Your task to perform on an android device: toggle improve location accuracy Image 0: 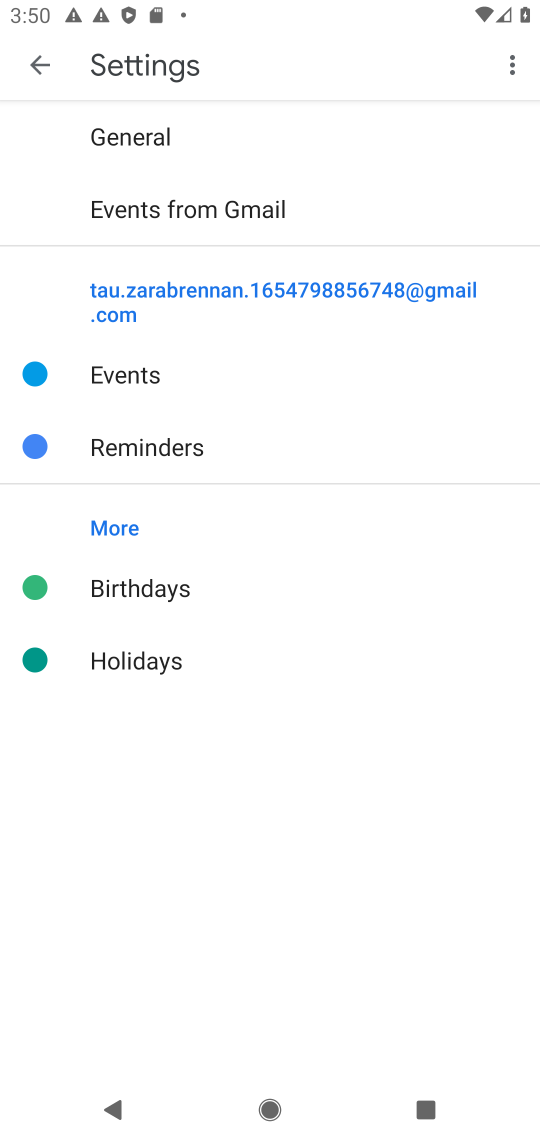
Step 0: press home button
Your task to perform on an android device: toggle improve location accuracy Image 1: 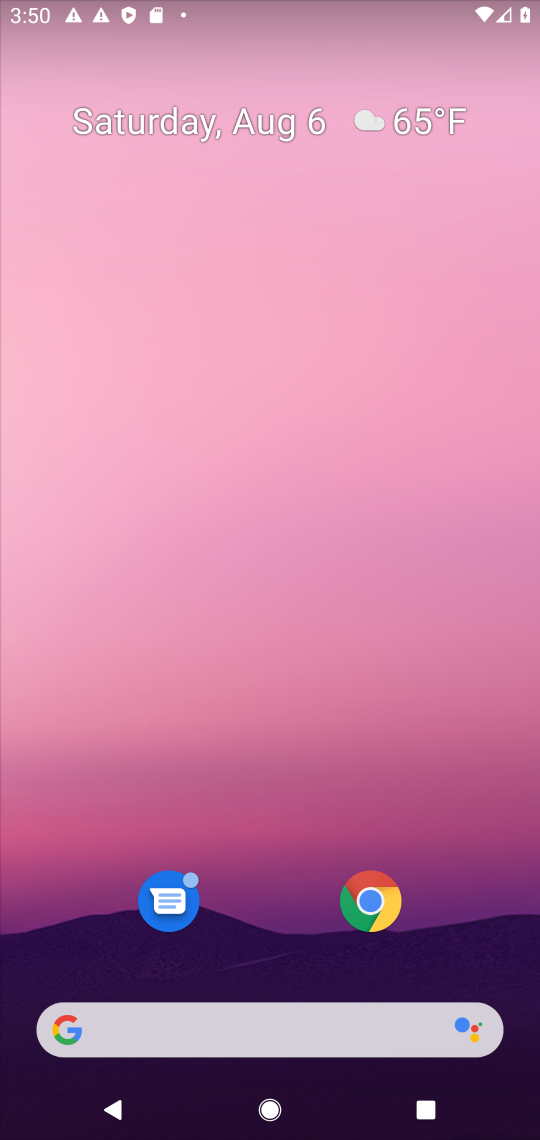
Step 1: drag from (313, 903) to (377, 287)
Your task to perform on an android device: toggle improve location accuracy Image 2: 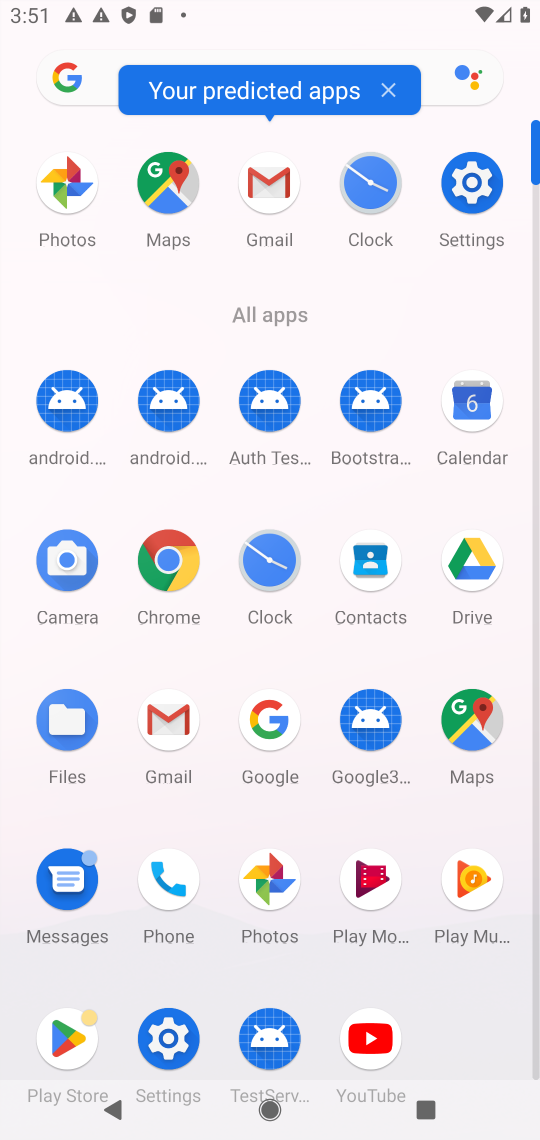
Step 2: click (468, 191)
Your task to perform on an android device: toggle improve location accuracy Image 3: 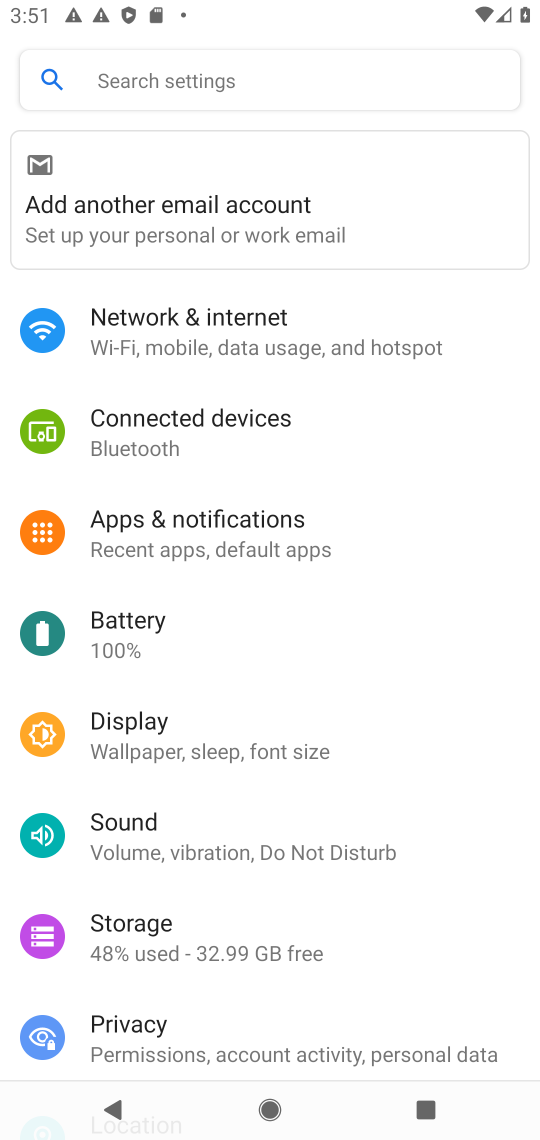
Step 3: drag from (331, 961) to (310, 537)
Your task to perform on an android device: toggle improve location accuracy Image 4: 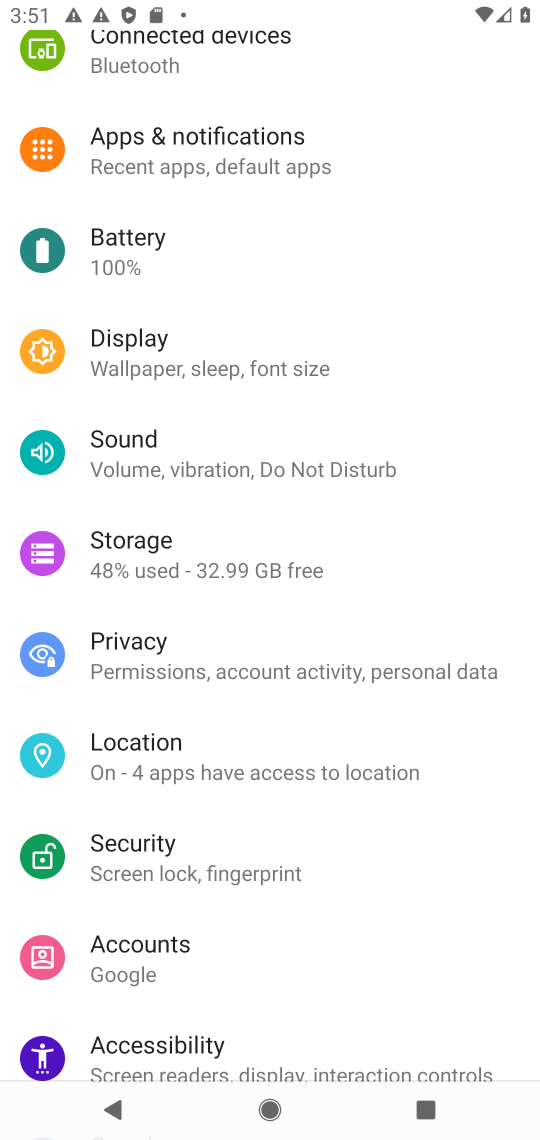
Step 4: click (210, 758)
Your task to perform on an android device: toggle improve location accuracy Image 5: 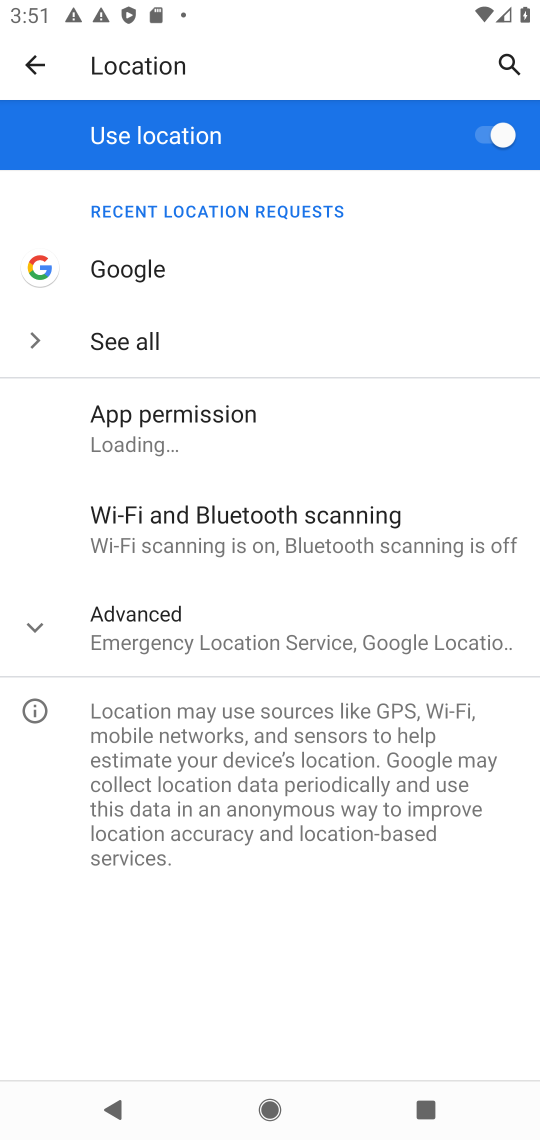
Step 5: click (226, 637)
Your task to perform on an android device: toggle improve location accuracy Image 6: 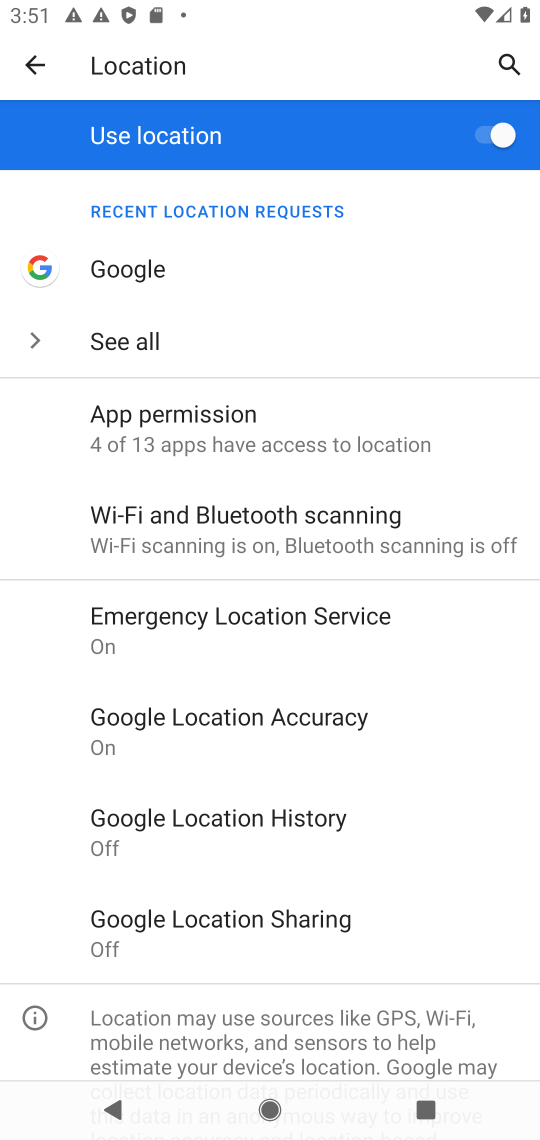
Step 6: click (204, 714)
Your task to perform on an android device: toggle improve location accuracy Image 7: 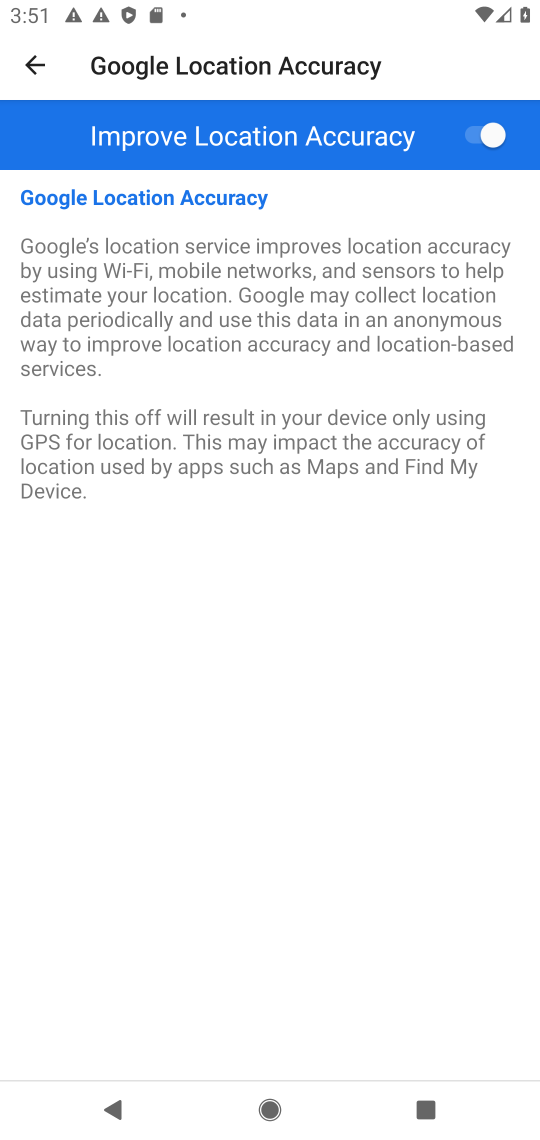
Step 7: click (297, 150)
Your task to perform on an android device: toggle improve location accuracy Image 8: 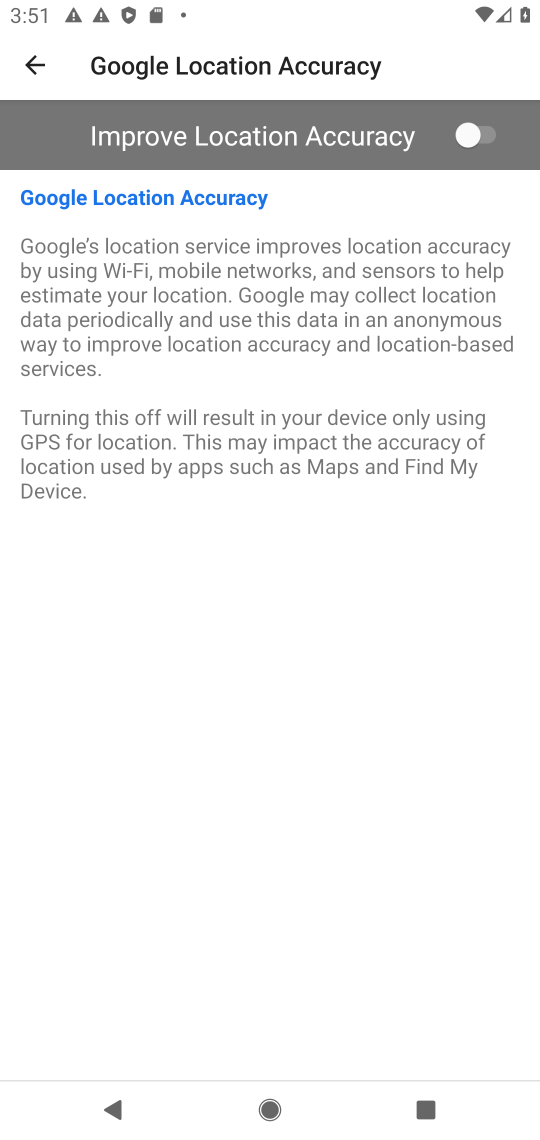
Step 8: task complete